Your task to perform on an android device: Search for the best deal on a 3d printer on aliexpress Image 0: 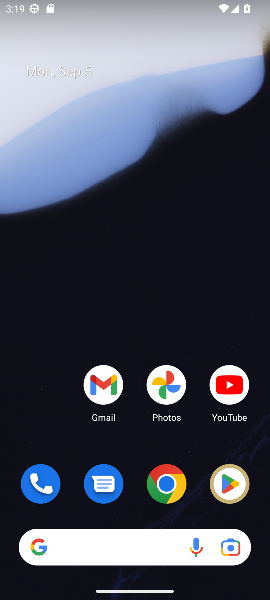
Step 0: click (169, 484)
Your task to perform on an android device: Search for the best deal on a 3d printer on aliexpress Image 1: 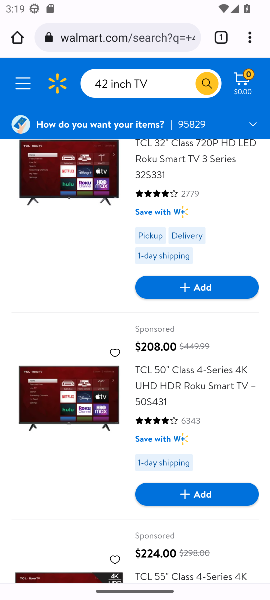
Step 1: click (166, 39)
Your task to perform on an android device: Search for the best deal on a 3d printer on aliexpress Image 2: 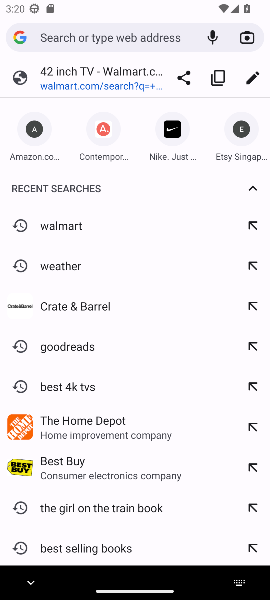
Step 2: type "aliexpress"
Your task to perform on an android device: Search for the best deal on a 3d printer on aliexpress Image 3: 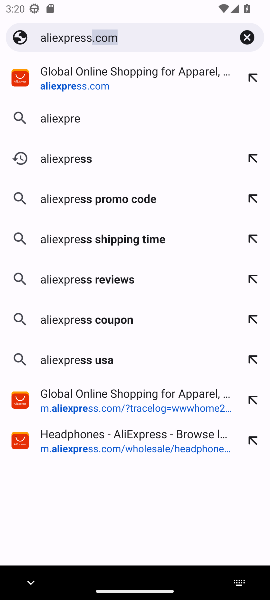
Step 3: press enter
Your task to perform on an android device: Search for the best deal on a 3d printer on aliexpress Image 4: 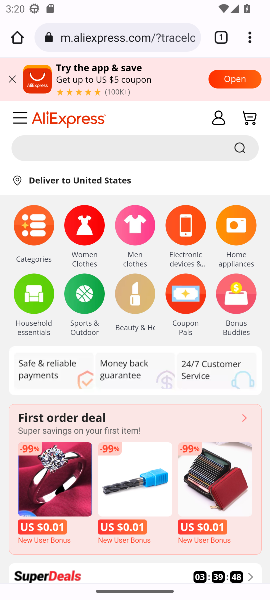
Step 4: click (98, 143)
Your task to perform on an android device: Search for the best deal on a 3d printer on aliexpress Image 5: 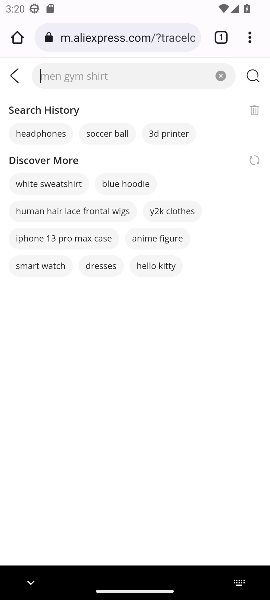
Step 5: type "3d printer "
Your task to perform on an android device: Search for the best deal on a 3d printer on aliexpress Image 6: 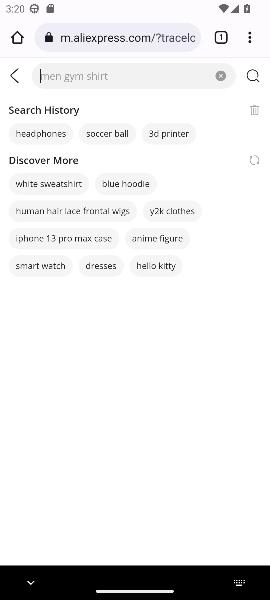
Step 6: press enter
Your task to perform on an android device: Search for the best deal on a 3d printer on aliexpress Image 7: 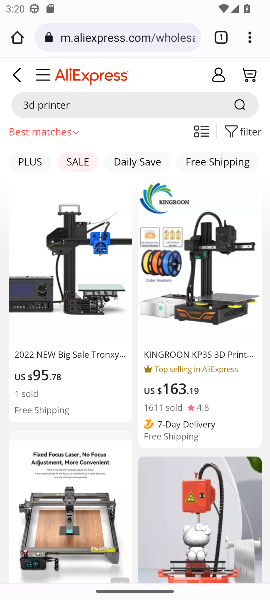
Step 7: task complete